Your task to perform on an android device: turn on sleep mode Image 0: 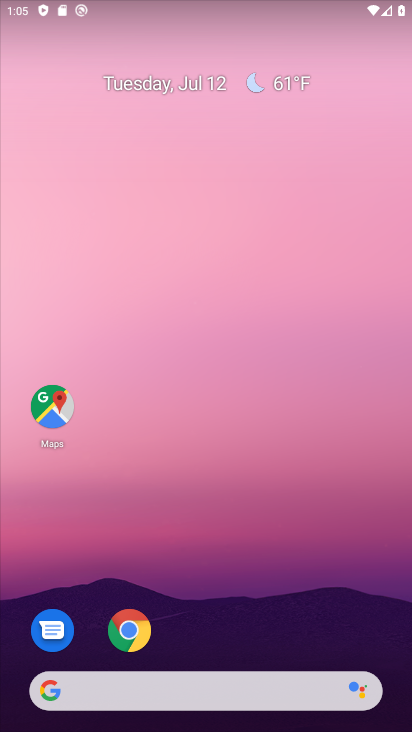
Step 0: drag from (210, 642) to (201, 302)
Your task to perform on an android device: turn on sleep mode Image 1: 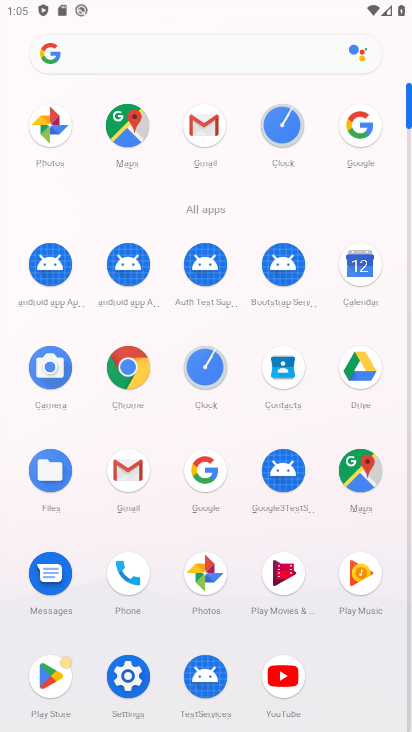
Step 1: click (134, 658)
Your task to perform on an android device: turn on sleep mode Image 2: 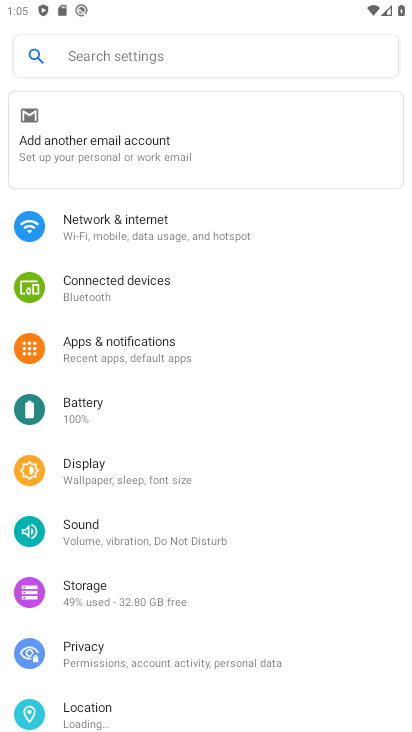
Step 2: click (128, 456)
Your task to perform on an android device: turn on sleep mode Image 3: 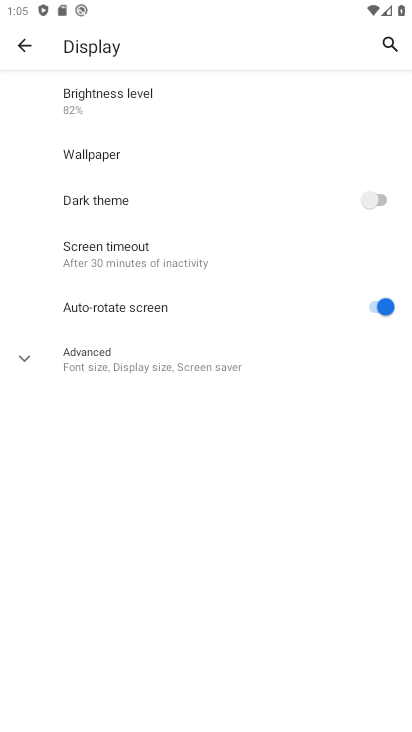
Step 3: click (136, 268)
Your task to perform on an android device: turn on sleep mode Image 4: 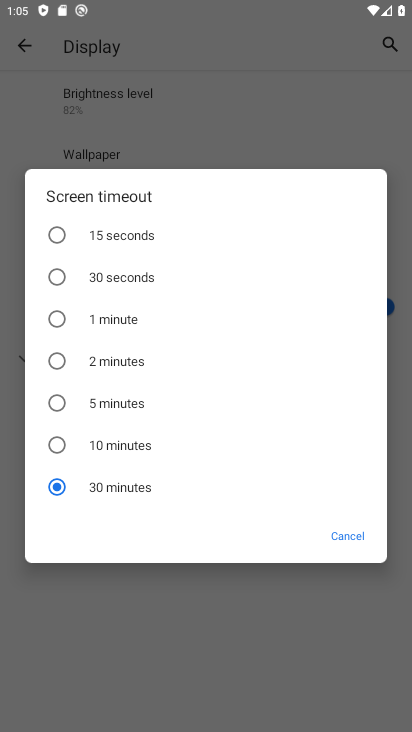
Step 4: click (120, 290)
Your task to perform on an android device: turn on sleep mode Image 5: 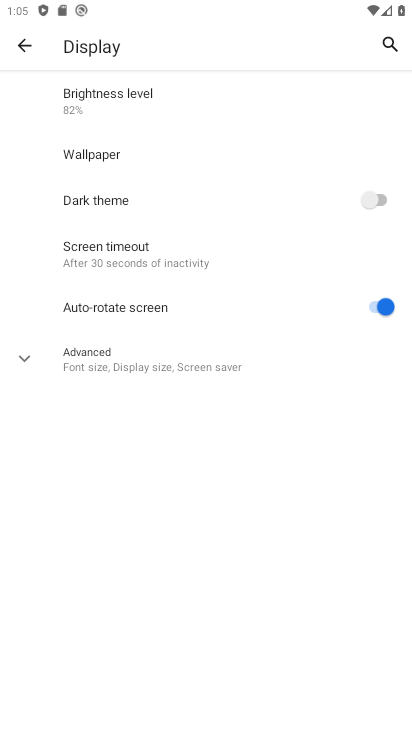
Step 5: task complete